Your task to perform on an android device: Search for a new desk on IKEA Image 0: 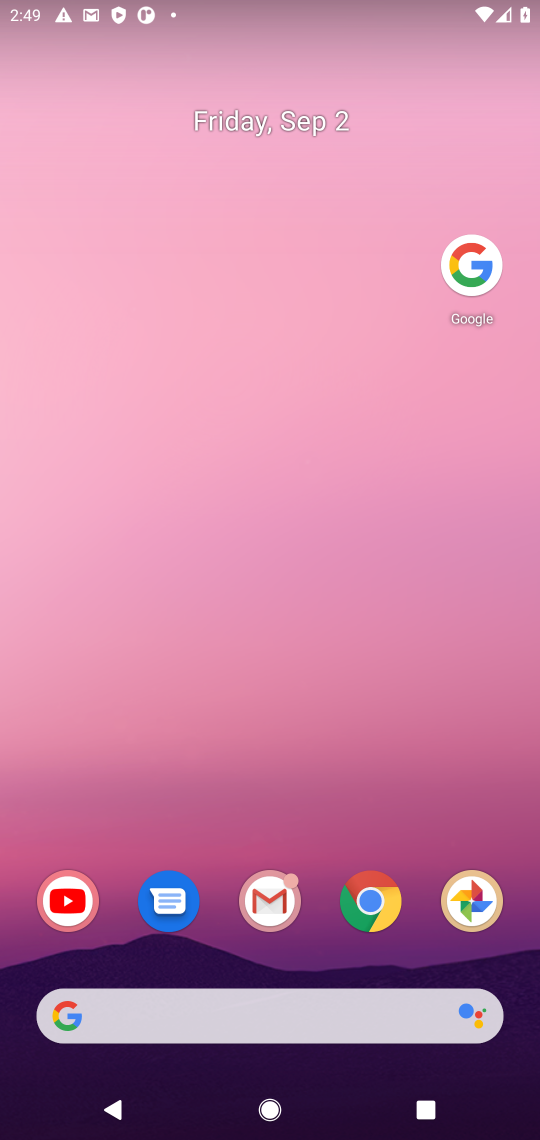
Step 0: drag from (338, 931) to (356, 199)
Your task to perform on an android device: Search for a new desk on IKEA Image 1: 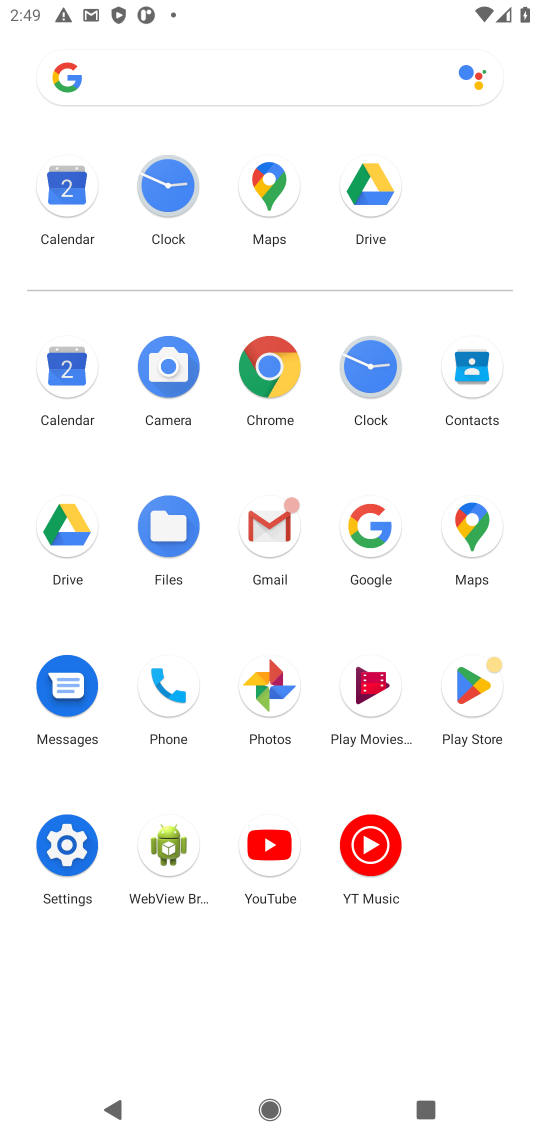
Step 1: click (364, 537)
Your task to perform on an android device: Search for a new desk on IKEA Image 2: 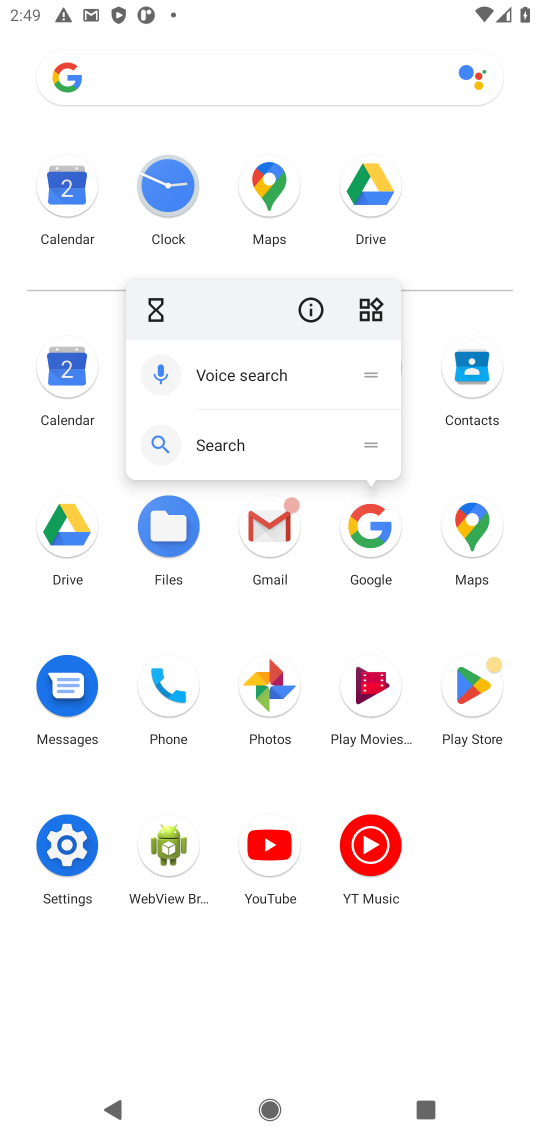
Step 2: click (359, 518)
Your task to perform on an android device: Search for a new desk on IKEA Image 3: 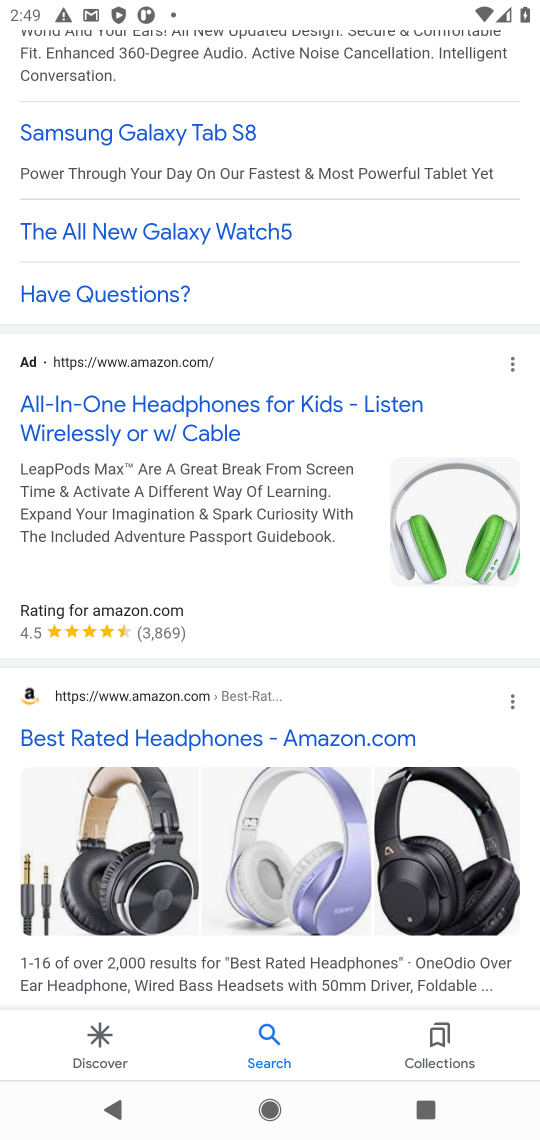
Step 3: drag from (290, 300) to (240, 871)
Your task to perform on an android device: Search for a new desk on IKEA Image 4: 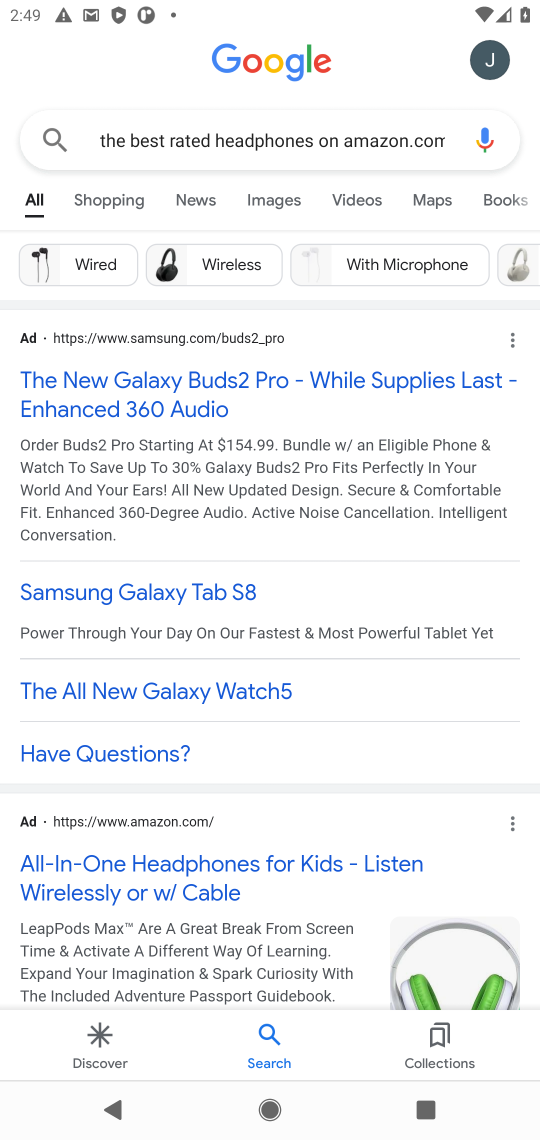
Step 4: click (259, 140)
Your task to perform on an android device: Search for a new desk on IKEA Image 5: 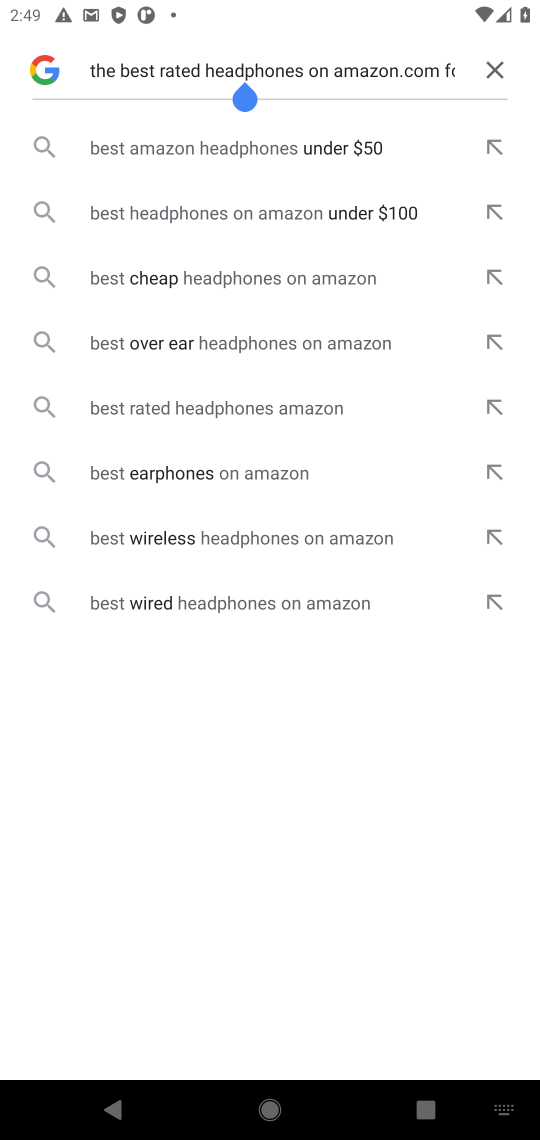
Step 5: click (496, 55)
Your task to perform on an android device: Search for a new desk on IKEA Image 6: 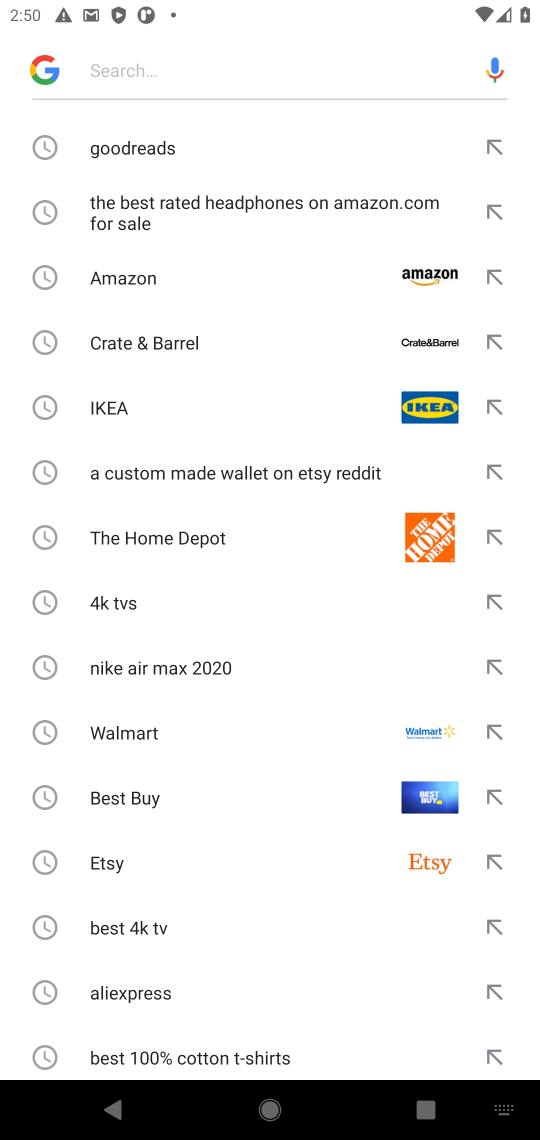
Step 6: click (268, 64)
Your task to perform on an android device: Search for a new desk on IKEA Image 7: 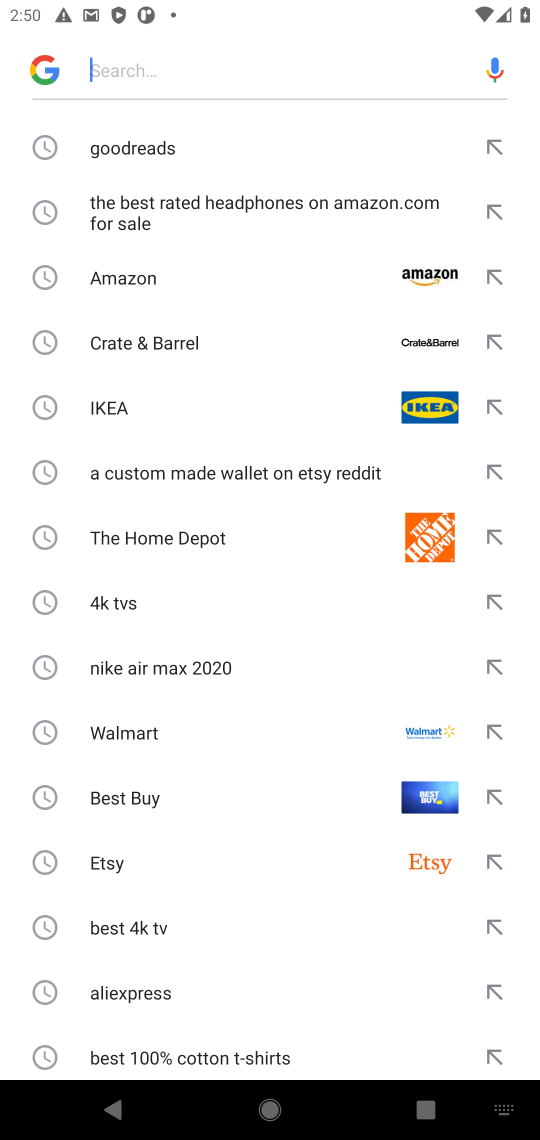
Step 7: click (247, 59)
Your task to perform on an android device: Search for a new desk on IKEA Image 8: 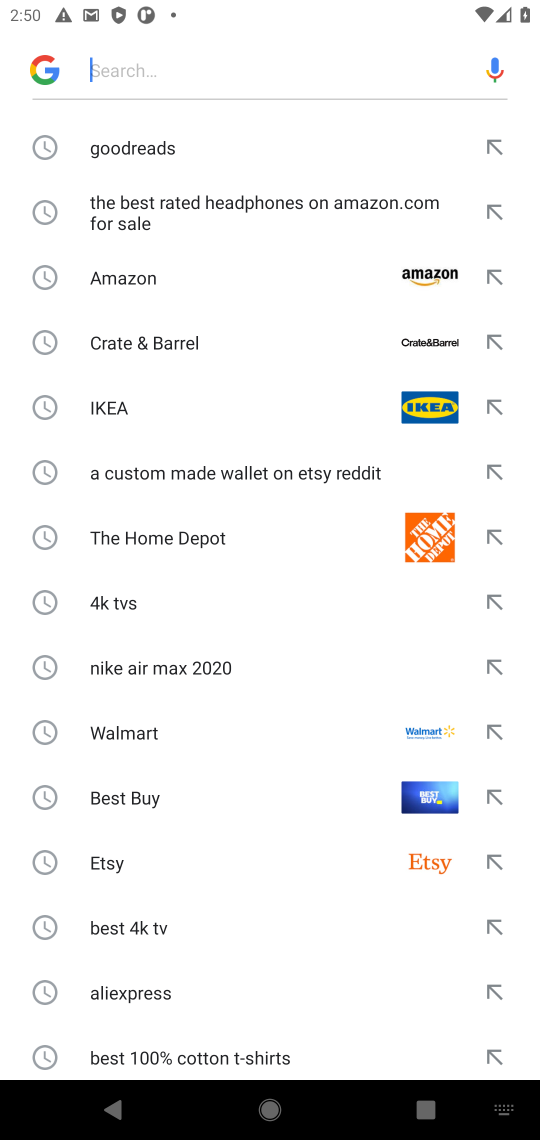
Step 8: type "a new desk on IKEA "
Your task to perform on an android device: Search for a new desk on IKEA Image 9: 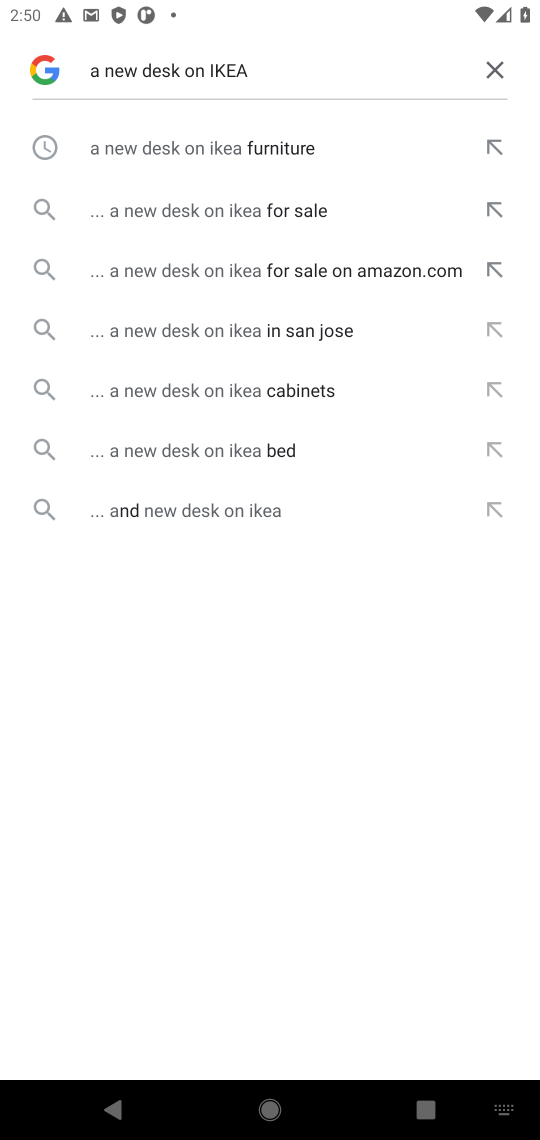
Step 9: click (226, 138)
Your task to perform on an android device: Search for a new desk on IKEA Image 10: 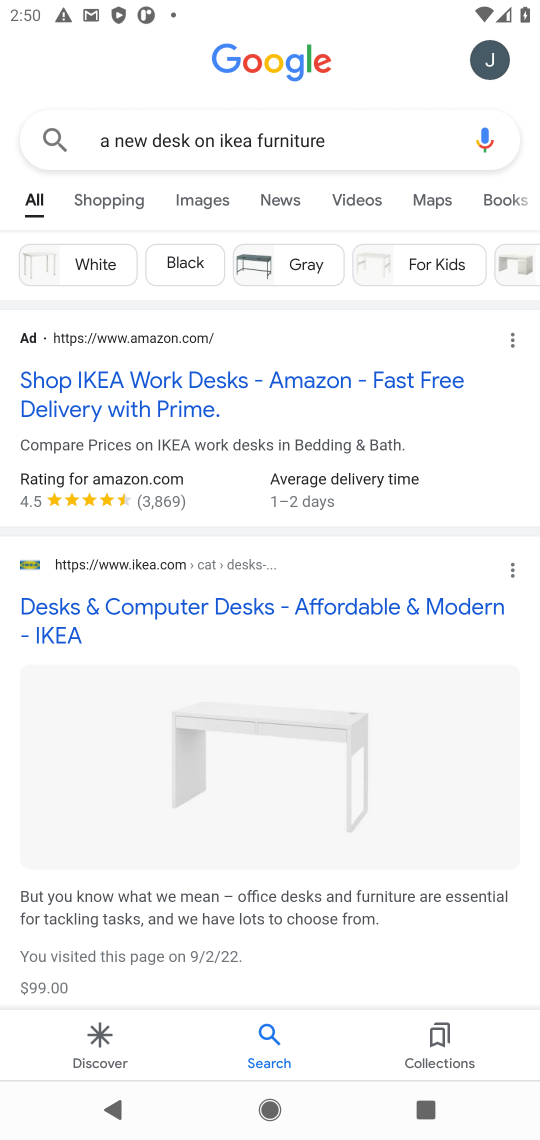
Step 10: click (147, 368)
Your task to perform on an android device: Search for a new desk on IKEA Image 11: 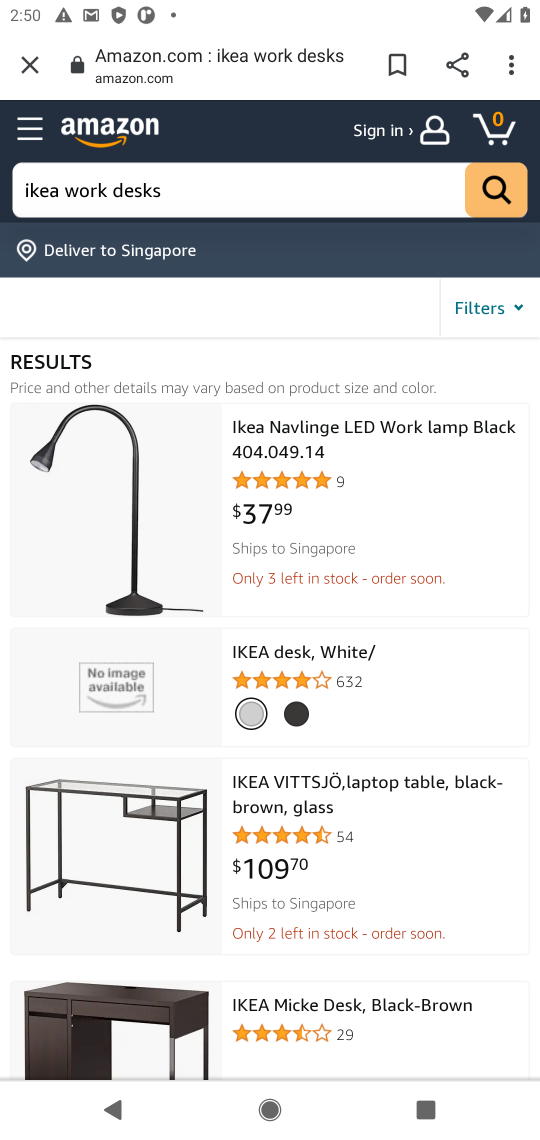
Step 11: press back button
Your task to perform on an android device: Search for a new desk on IKEA Image 12: 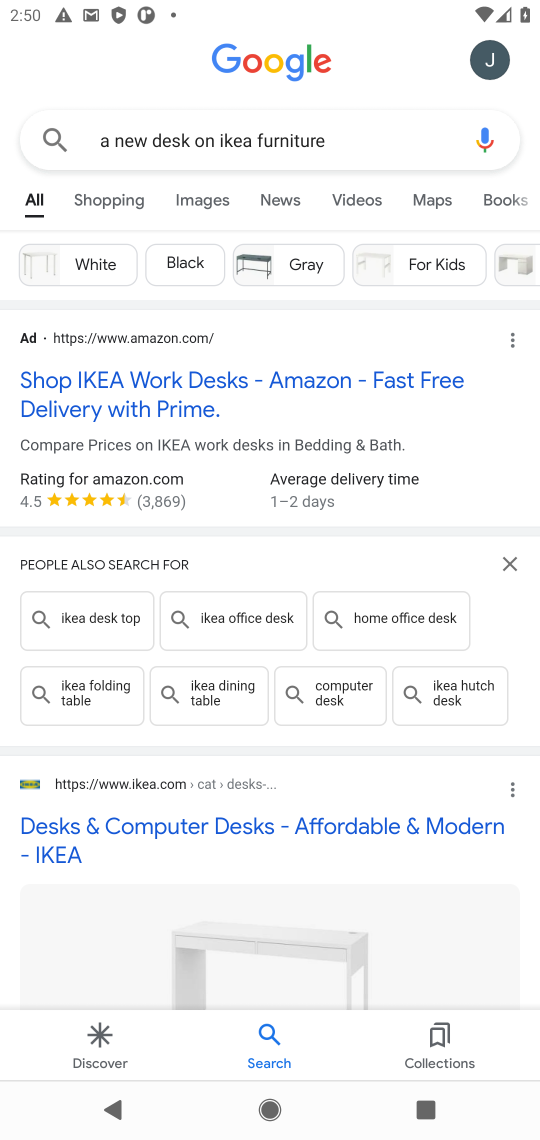
Step 12: click (155, 825)
Your task to perform on an android device: Search for a new desk on IKEA Image 13: 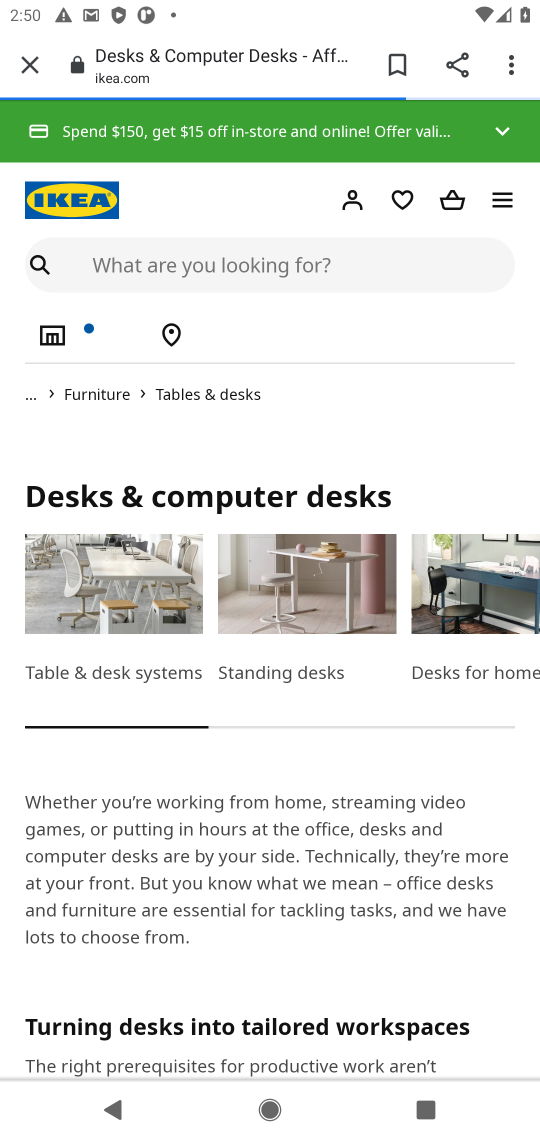
Step 13: task complete